Your task to perform on an android device: Empty the shopping cart on ebay.com. Add "panasonic triple a" to the cart on ebay.com Image 0: 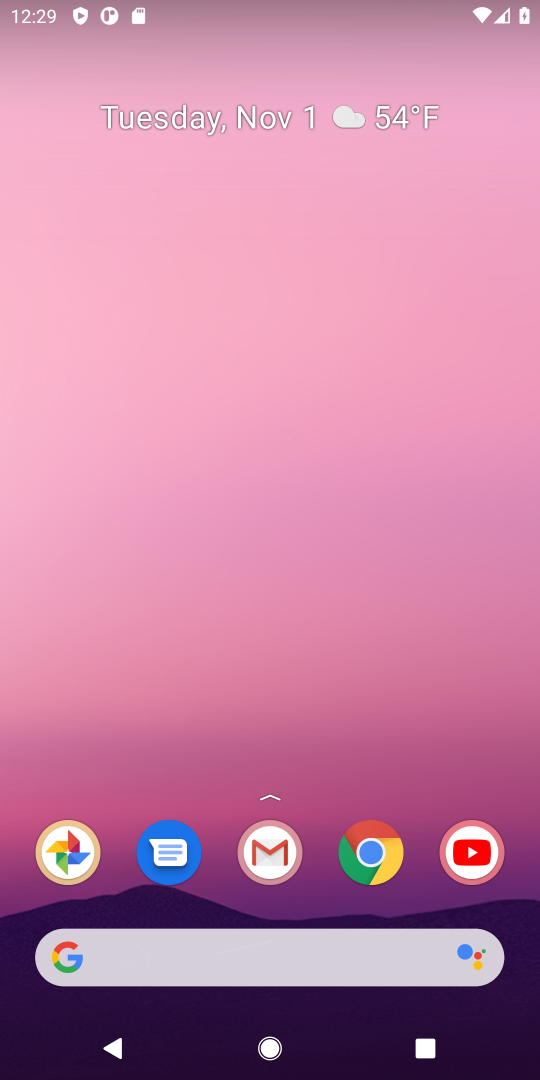
Step 0: click (280, 63)
Your task to perform on an android device: Empty the shopping cart on ebay.com. Add "panasonic triple a" to the cart on ebay.com Image 1: 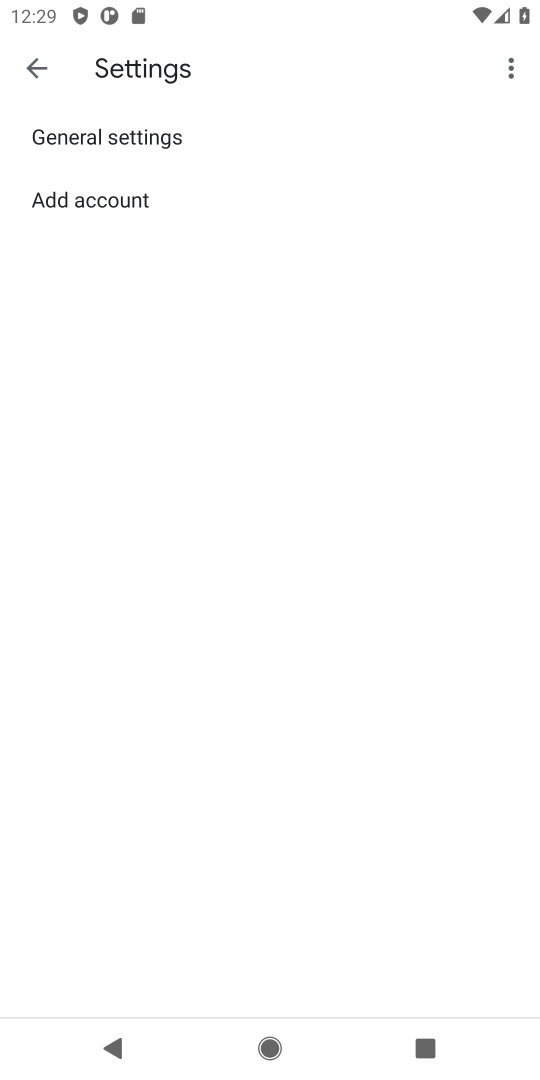
Step 1: press home button
Your task to perform on an android device: Empty the shopping cart on ebay.com. Add "panasonic triple a" to the cart on ebay.com Image 2: 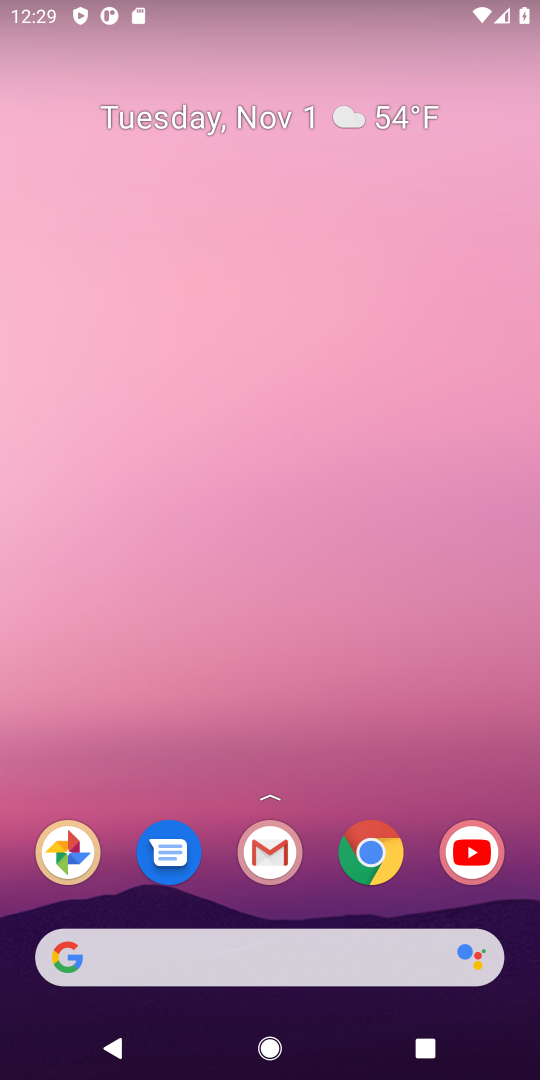
Step 2: click (385, 870)
Your task to perform on an android device: Empty the shopping cart on ebay.com. Add "panasonic triple a" to the cart on ebay.com Image 3: 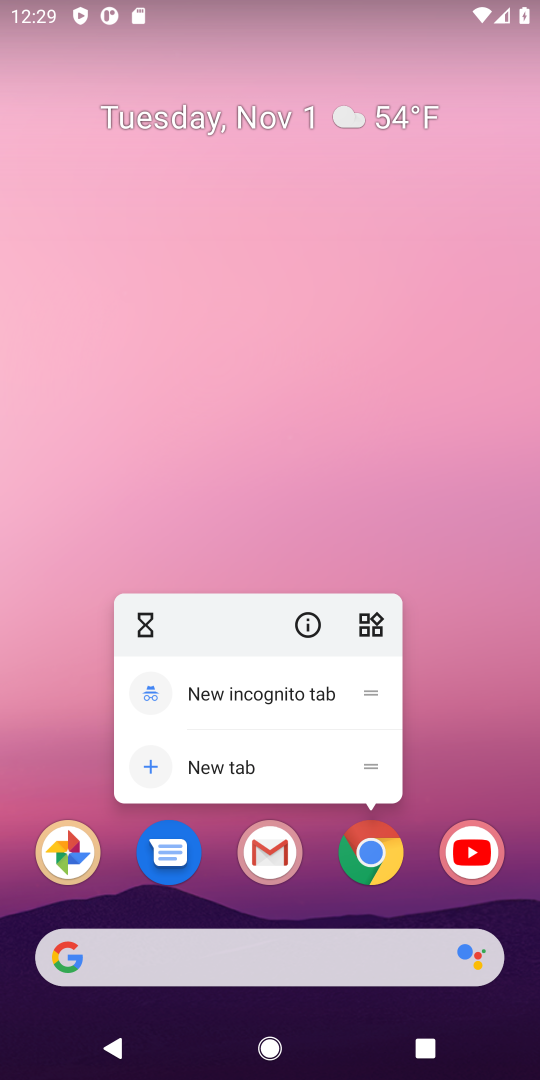
Step 3: click (373, 859)
Your task to perform on an android device: Empty the shopping cart on ebay.com. Add "panasonic triple a" to the cart on ebay.com Image 4: 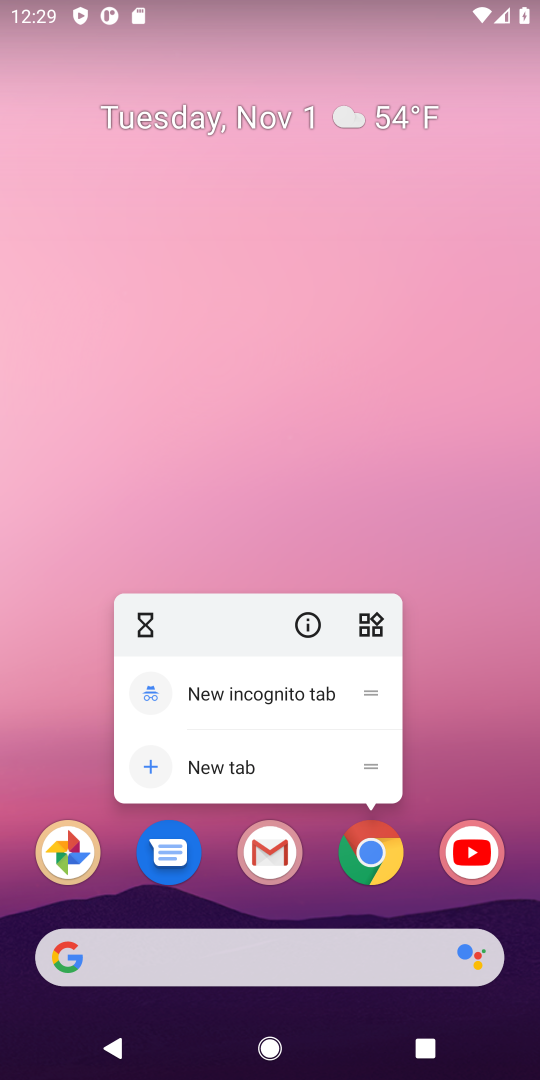
Step 4: click (384, 867)
Your task to perform on an android device: Empty the shopping cart on ebay.com. Add "panasonic triple a" to the cart on ebay.com Image 5: 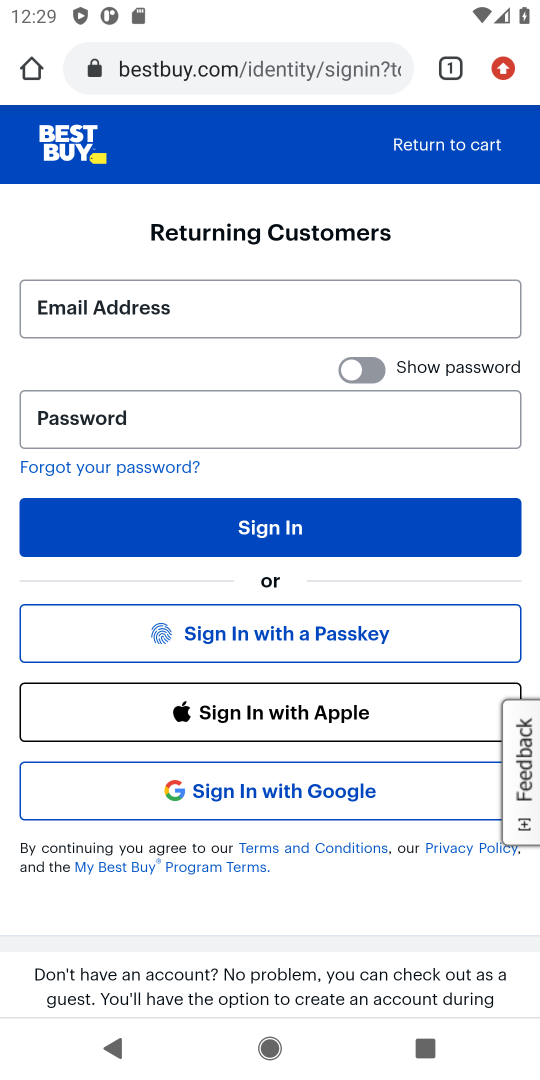
Step 5: click (315, 78)
Your task to perform on an android device: Empty the shopping cart on ebay.com. Add "panasonic triple a" to the cart on ebay.com Image 6: 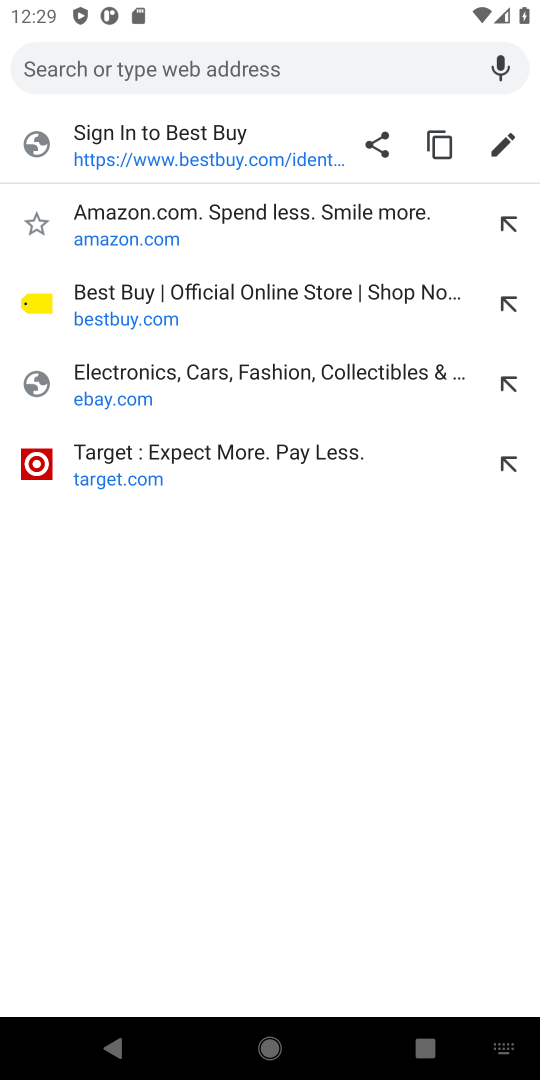
Step 6: type " bestbuy.com"
Your task to perform on an android device: Empty the shopping cart on ebay.com. Add "panasonic triple a" to the cart on ebay.com Image 7: 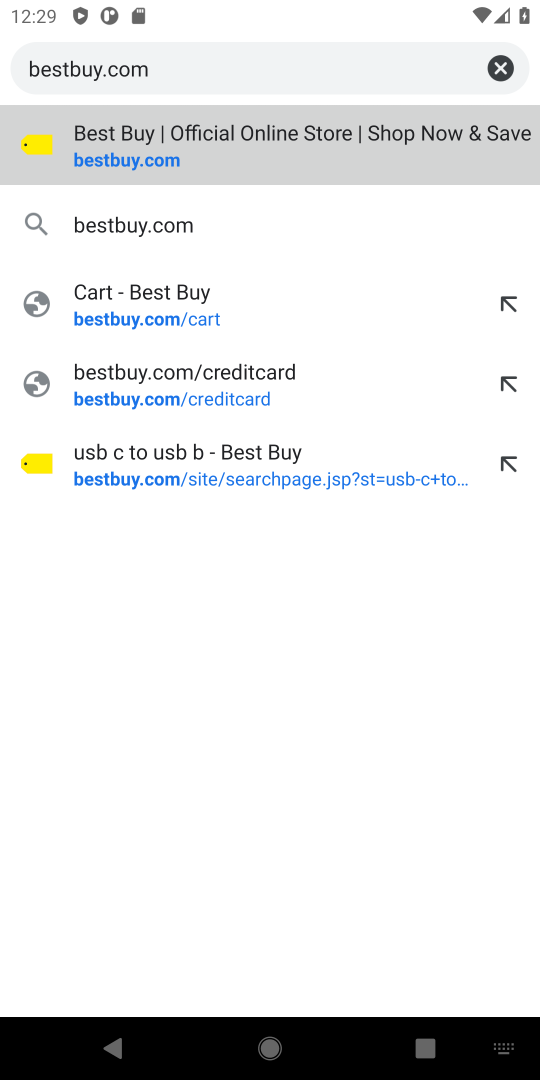
Step 7: type ""
Your task to perform on an android device: Empty the shopping cart on ebay.com. Add "panasonic triple a" to the cart on ebay.com Image 8: 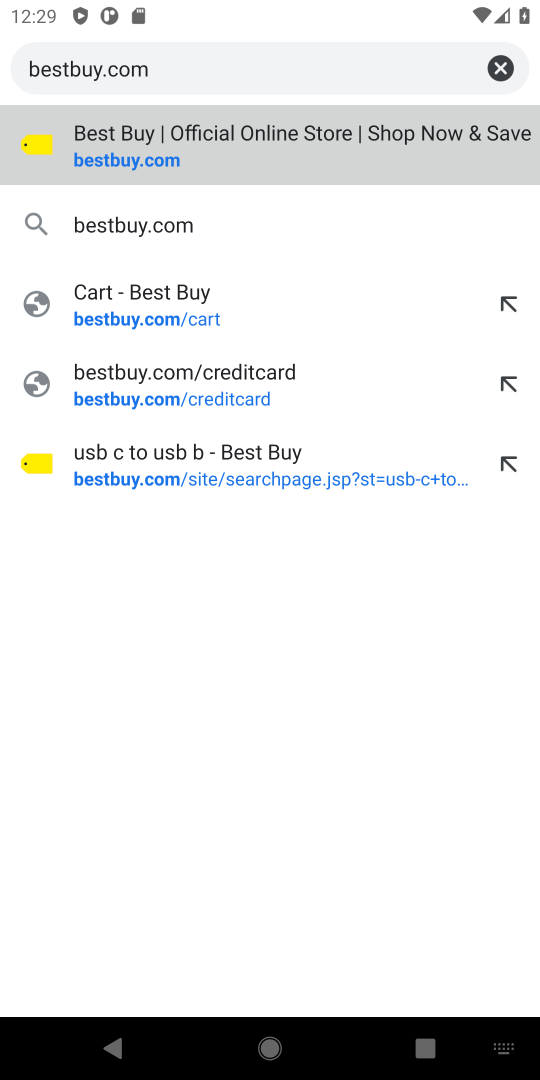
Step 8: press enter
Your task to perform on an android device: Empty the shopping cart on ebay.com. Add "panasonic triple a" to the cart on ebay.com Image 9: 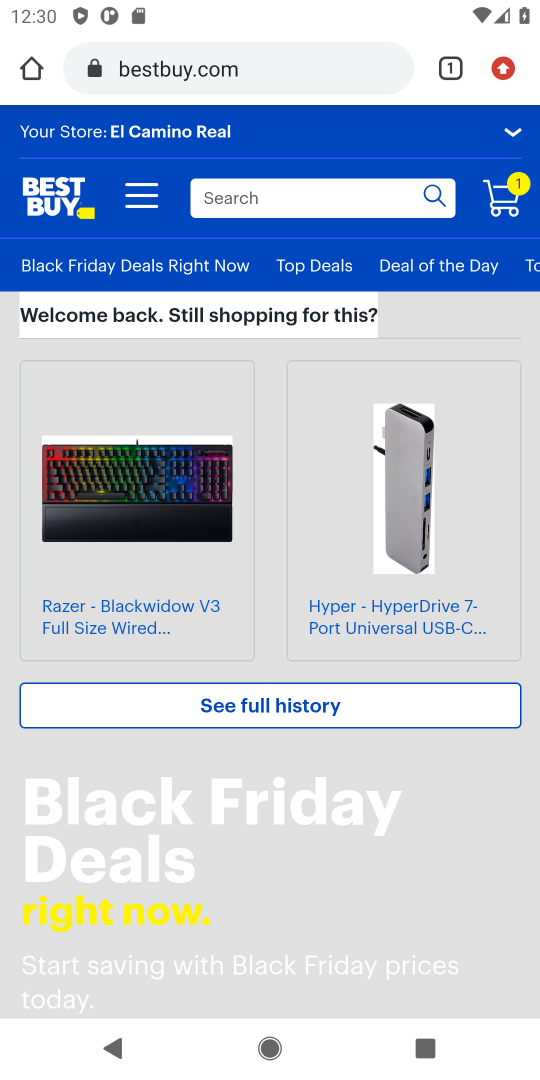
Step 9: click (502, 198)
Your task to perform on an android device: Empty the shopping cart on ebay.com. Add "panasonic triple a" to the cart on ebay.com Image 10: 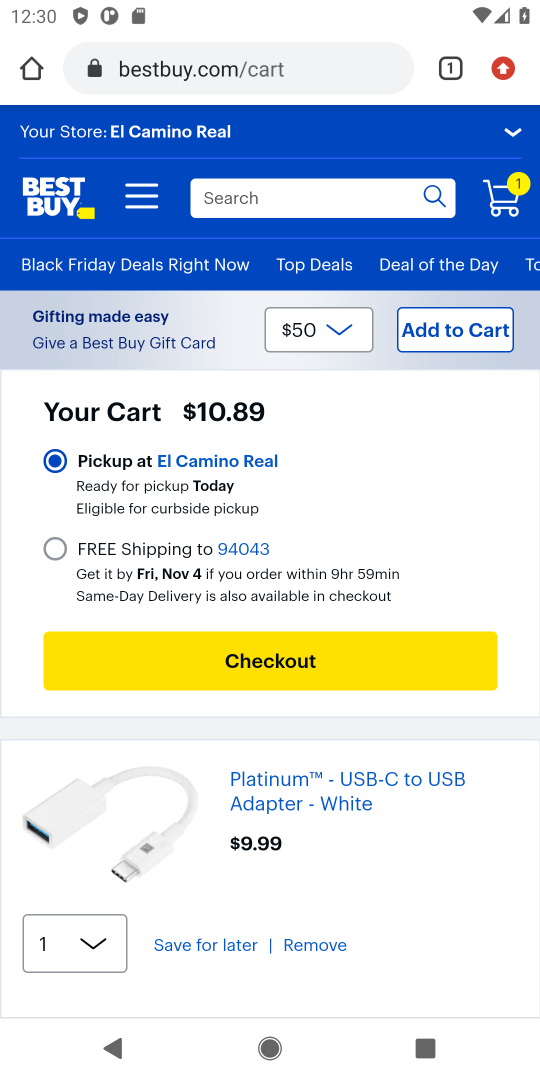
Step 10: click (300, 946)
Your task to perform on an android device: Empty the shopping cart on ebay.com. Add "panasonic triple a" to the cart on ebay.com Image 11: 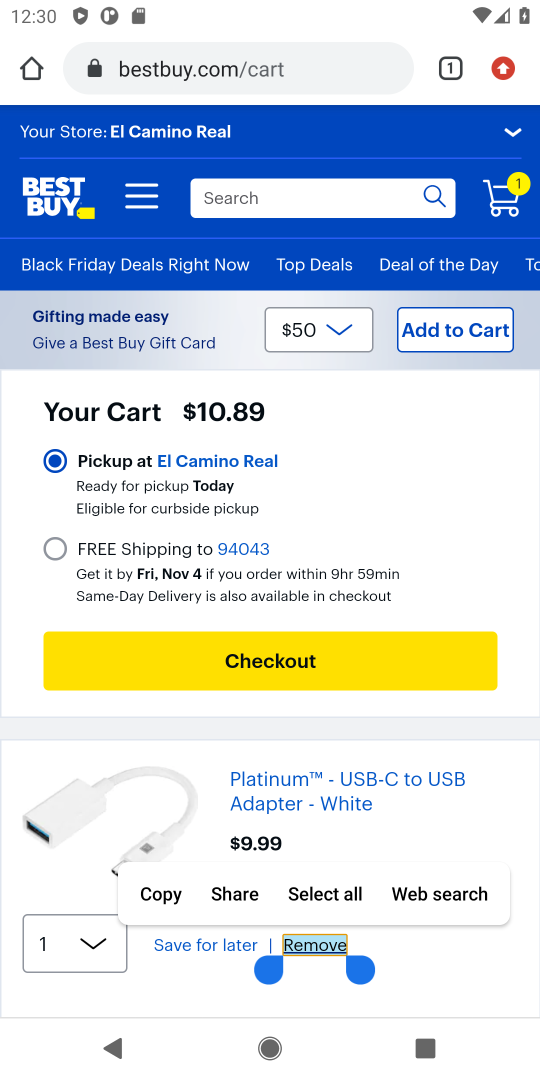
Step 11: click (308, 955)
Your task to perform on an android device: Empty the shopping cart on ebay.com. Add "panasonic triple a" to the cart on ebay.com Image 12: 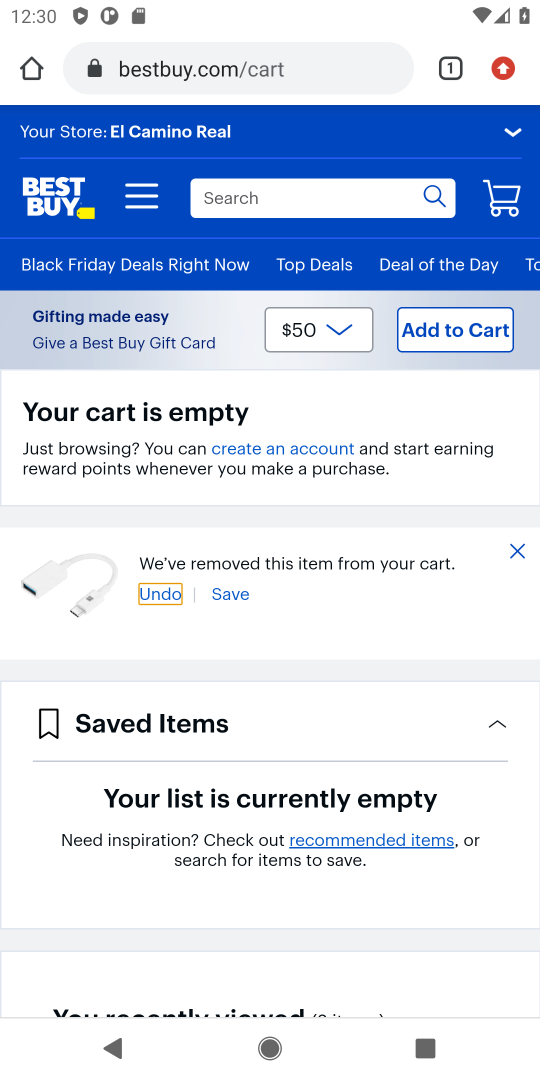
Step 12: click (314, 205)
Your task to perform on an android device: Empty the shopping cart on ebay.com. Add "panasonic triple a" to the cart on ebay.com Image 13: 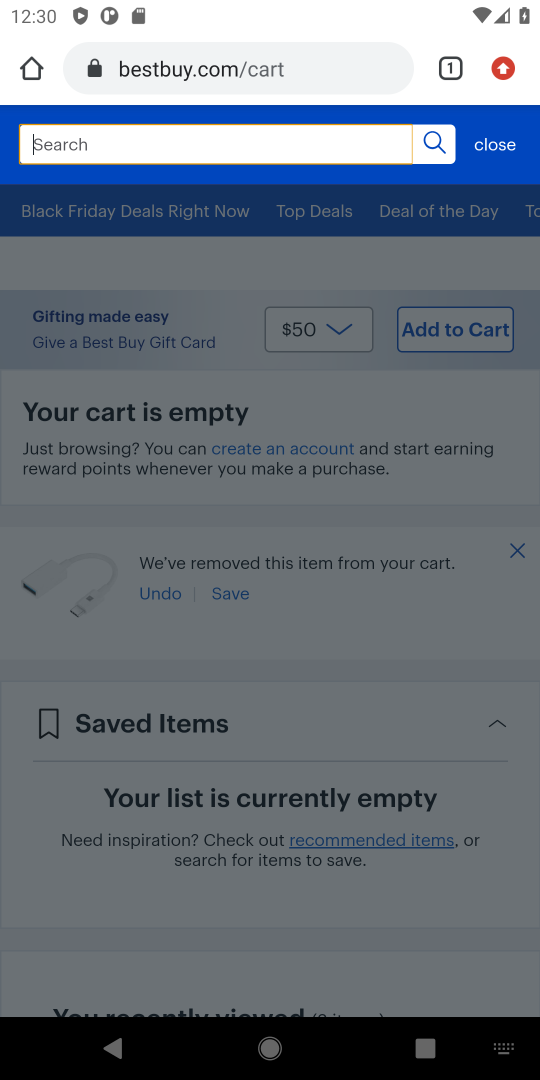
Step 13: type "panasonic triple a"
Your task to perform on an android device: Empty the shopping cart on ebay.com. Add "panasonic triple a" to the cart on ebay.com Image 14: 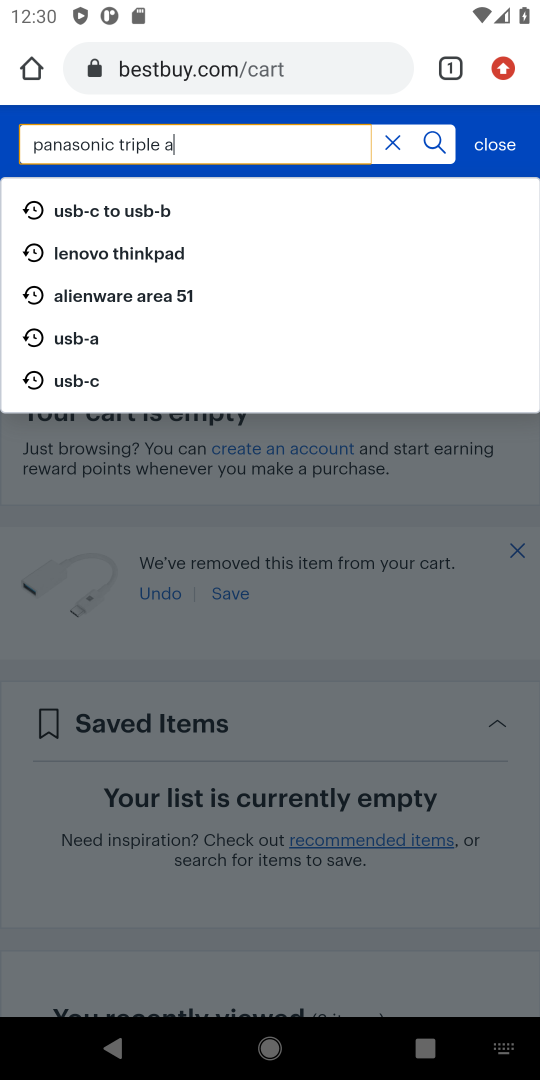
Step 14: type ""
Your task to perform on an android device: Empty the shopping cart on ebay.com. Add "panasonic triple a" to the cart on ebay.com Image 15: 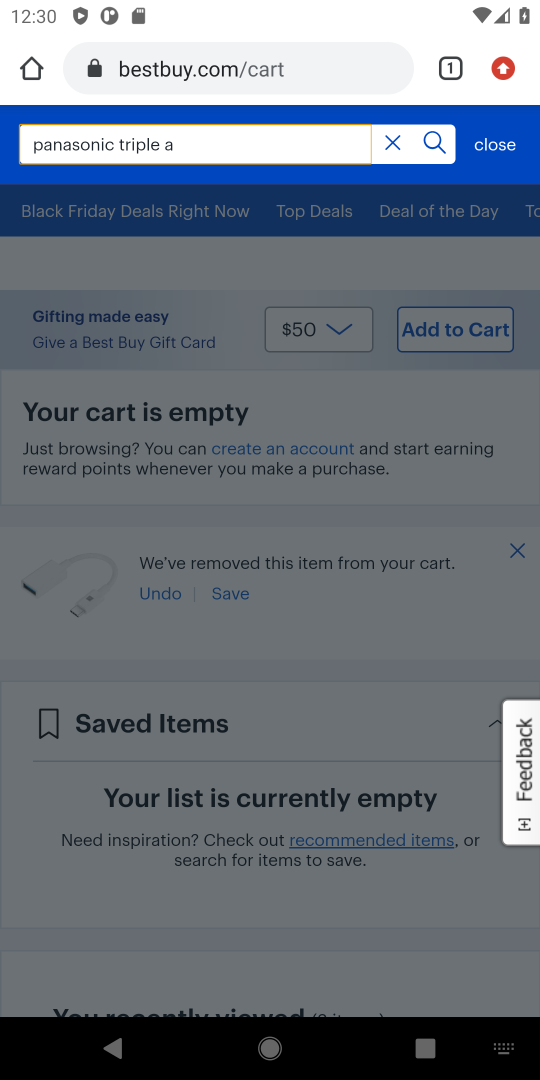
Step 15: press enter
Your task to perform on an android device: Empty the shopping cart on ebay.com. Add "panasonic triple a" to the cart on ebay.com Image 16: 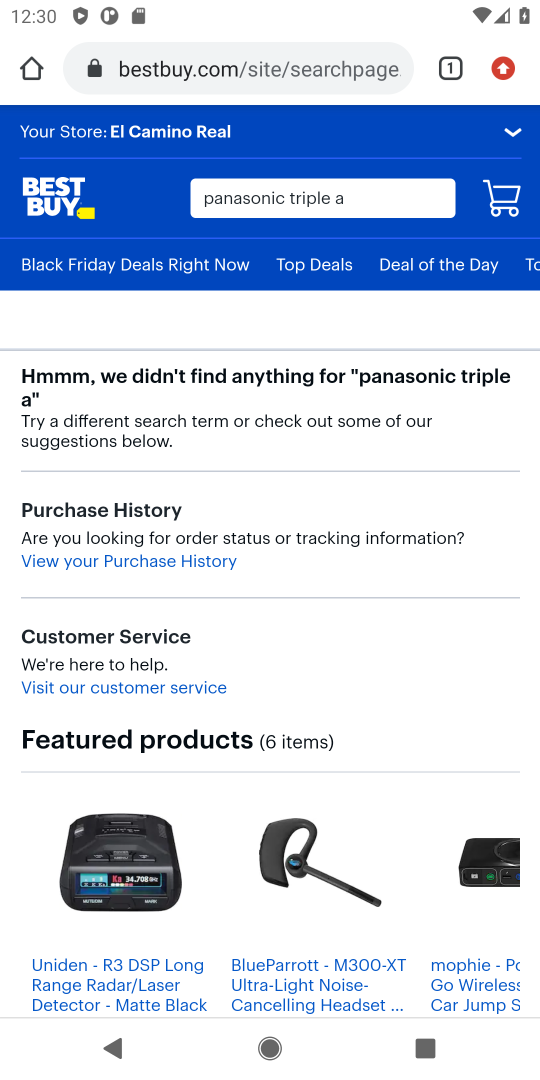
Step 16: task complete